Your task to perform on an android device: Open network settings Image 0: 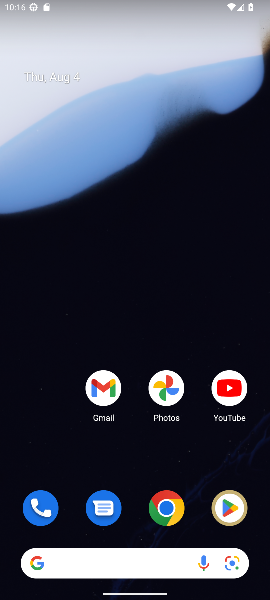
Step 0: drag from (61, 347) to (174, 53)
Your task to perform on an android device: Open network settings Image 1: 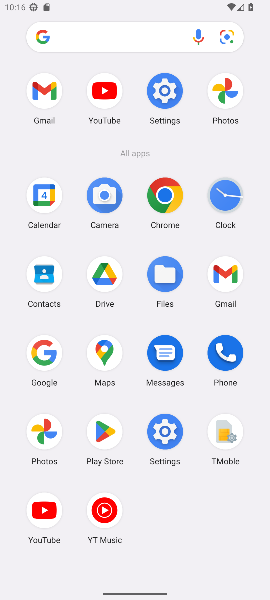
Step 1: click (179, 94)
Your task to perform on an android device: Open network settings Image 2: 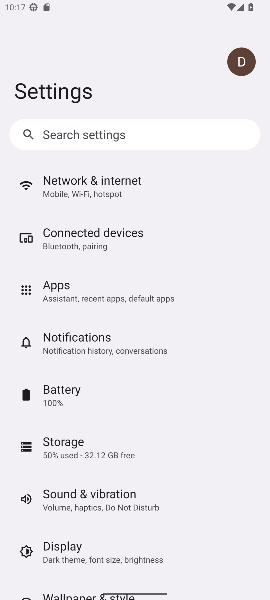
Step 2: click (105, 187)
Your task to perform on an android device: Open network settings Image 3: 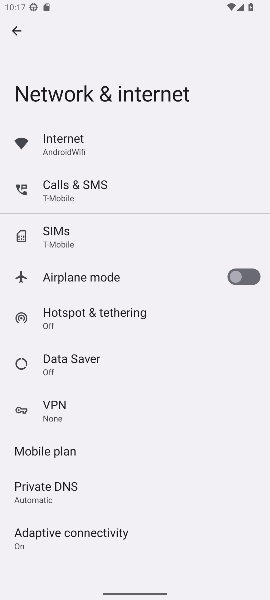
Step 3: task complete